Your task to perform on an android device: Add "lenovo thinkpad" to the cart on bestbuy Image 0: 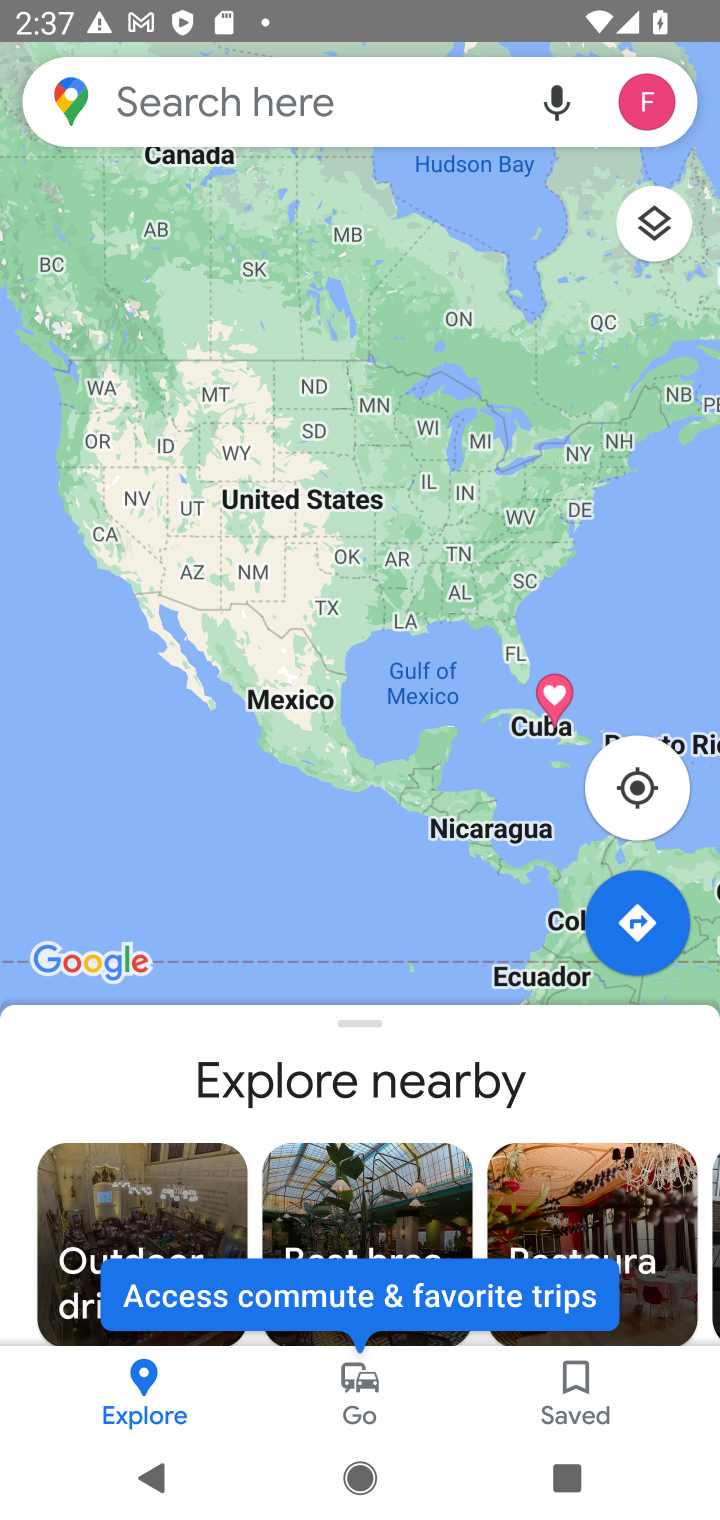
Step 0: task complete